Your task to perform on an android device: change timer sound Image 0: 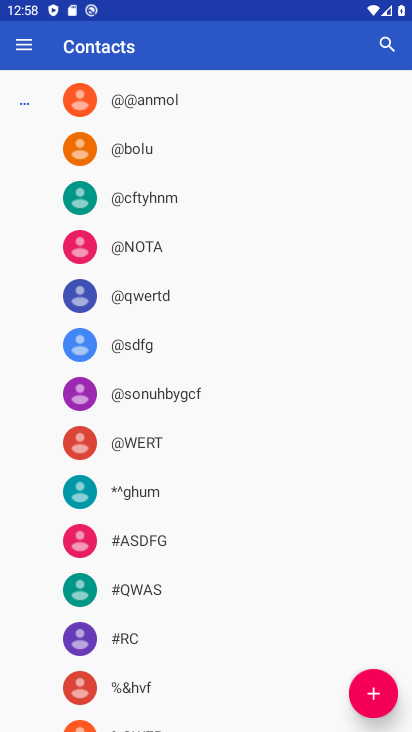
Step 0: press home button
Your task to perform on an android device: change timer sound Image 1: 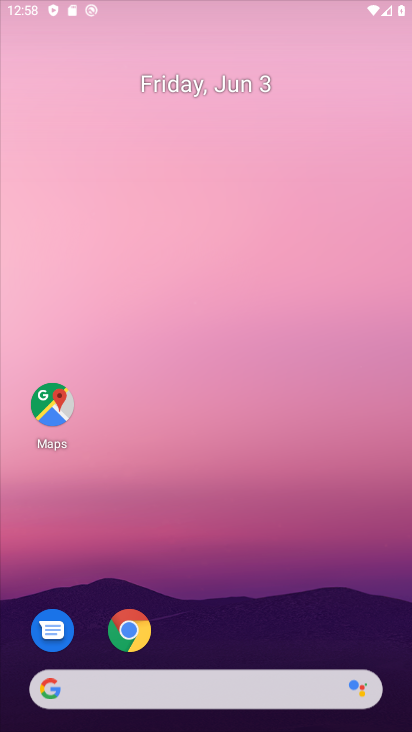
Step 1: drag from (191, 729) to (190, 106)
Your task to perform on an android device: change timer sound Image 2: 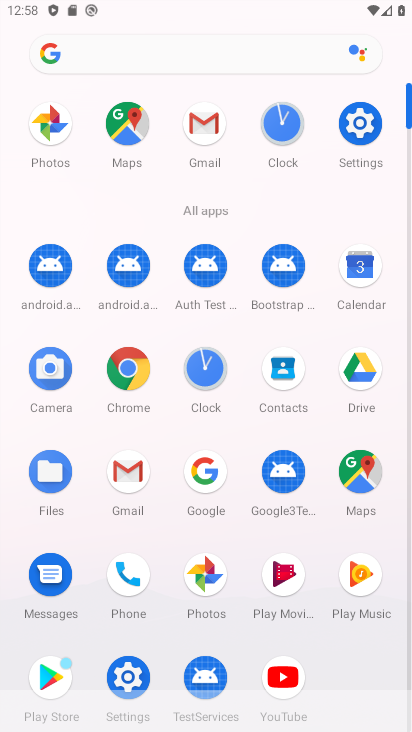
Step 2: click (197, 362)
Your task to perform on an android device: change timer sound Image 3: 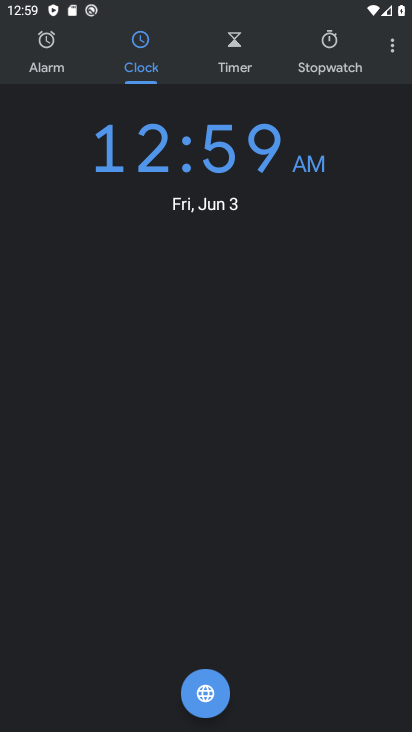
Step 3: click (394, 50)
Your task to perform on an android device: change timer sound Image 4: 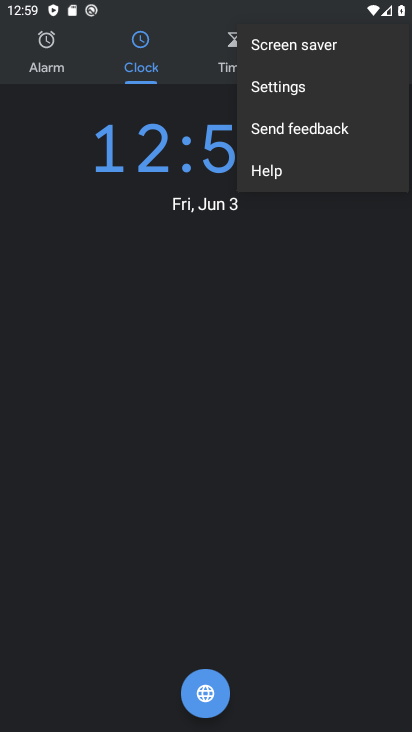
Step 4: click (283, 81)
Your task to perform on an android device: change timer sound Image 5: 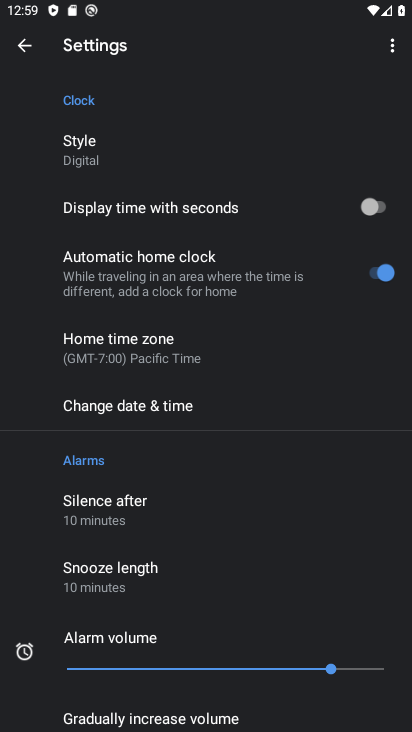
Step 5: drag from (125, 635) to (145, 224)
Your task to perform on an android device: change timer sound Image 6: 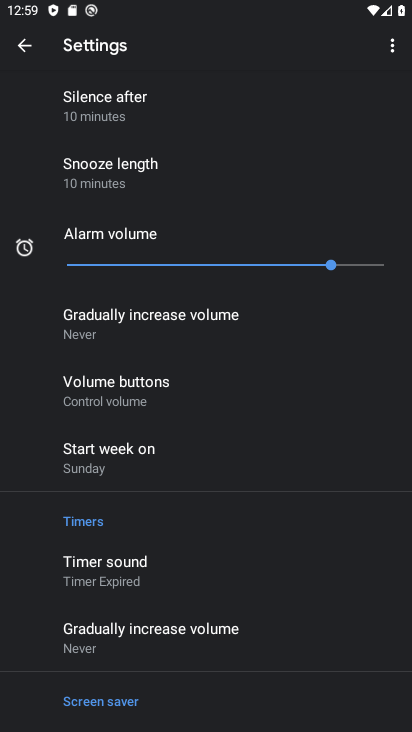
Step 6: click (100, 573)
Your task to perform on an android device: change timer sound Image 7: 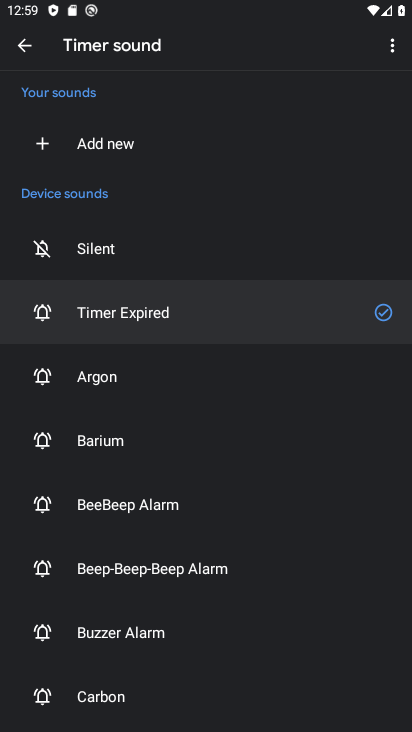
Step 7: click (93, 575)
Your task to perform on an android device: change timer sound Image 8: 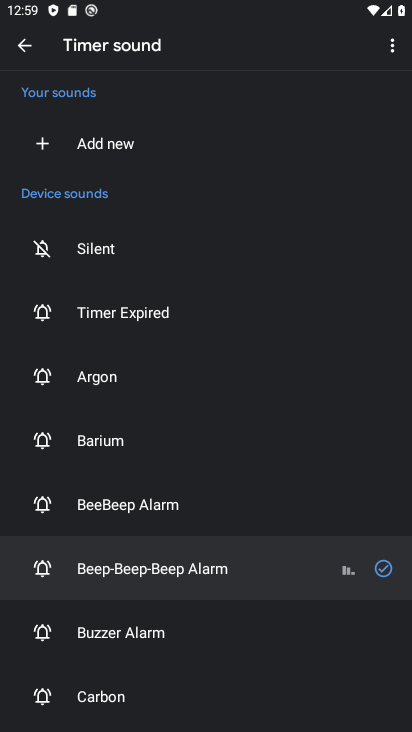
Step 8: task complete